Your task to perform on an android device: Check the news Image 0: 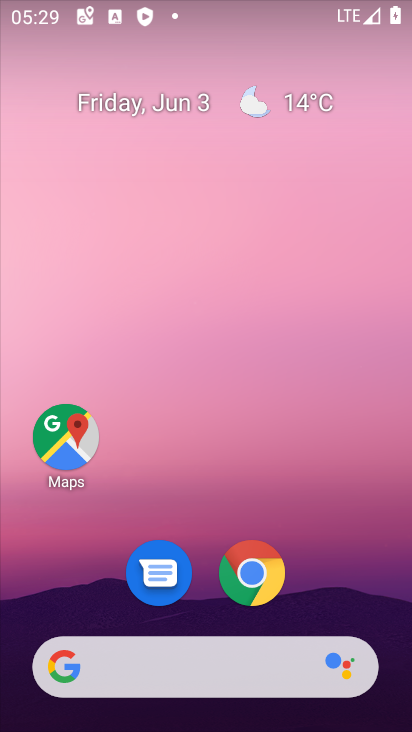
Step 0: drag from (314, 559) to (288, 119)
Your task to perform on an android device: Check the news Image 1: 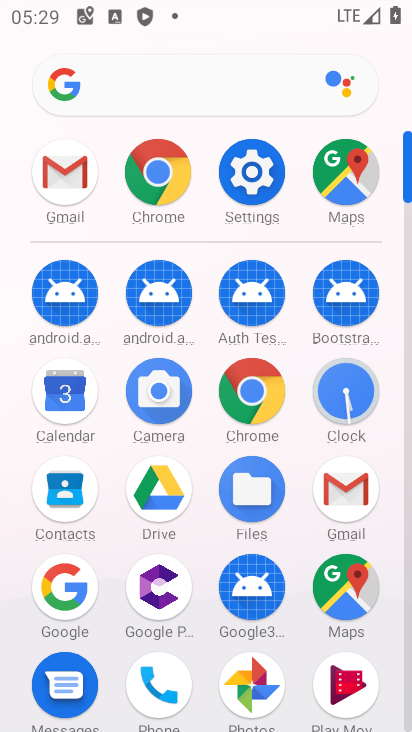
Step 1: click (155, 191)
Your task to perform on an android device: Check the news Image 2: 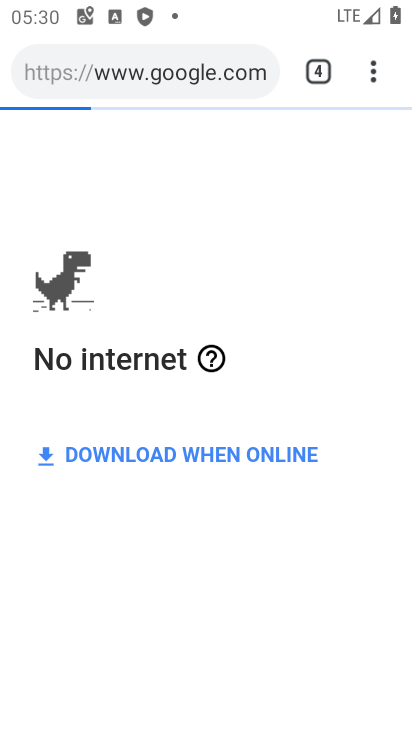
Step 2: click (242, 78)
Your task to perform on an android device: Check the news Image 3: 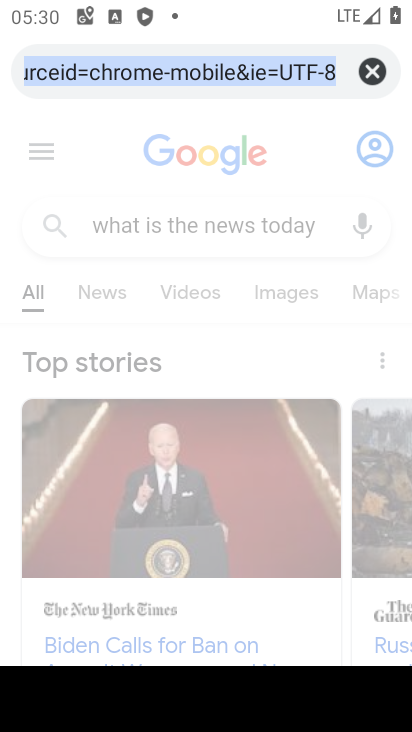
Step 3: click (383, 80)
Your task to perform on an android device: Check the news Image 4: 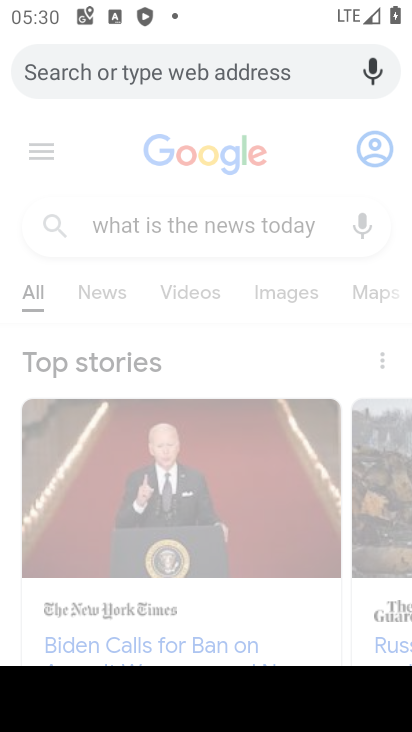
Step 4: type "check the news"
Your task to perform on an android device: Check the news Image 5: 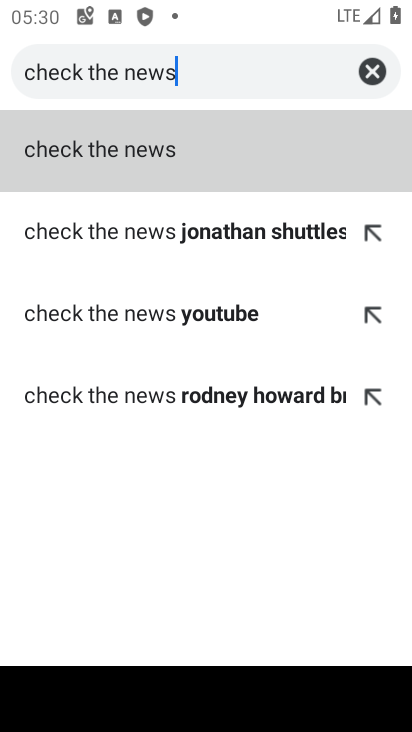
Step 5: click (251, 145)
Your task to perform on an android device: Check the news Image 6: 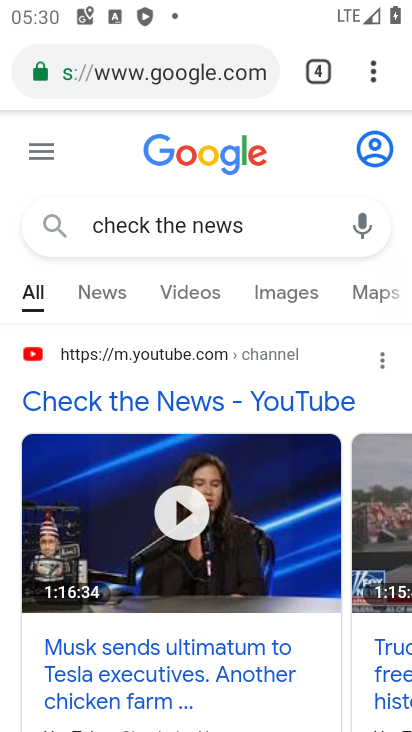
Step 6: task complete